Your task to perform on an android device: Open Google Chrome and click the shortcut for Amazon.com Image 0: 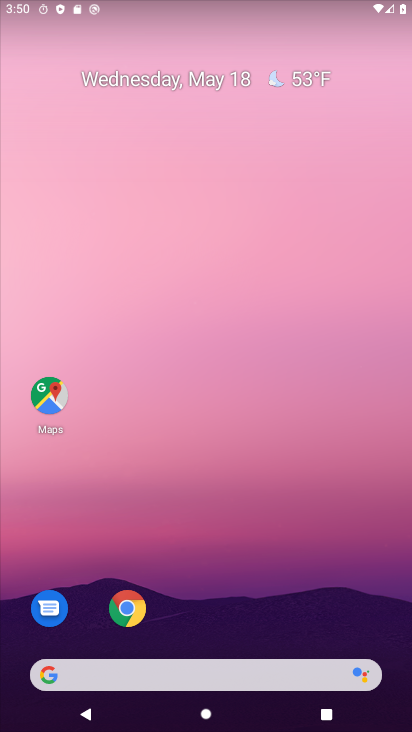
Step 0: drag from (275, 692) to (248, 2)
Your task to perform on an android device: Open Google Chrome and click the shortcut for Amazon.com Image 1: 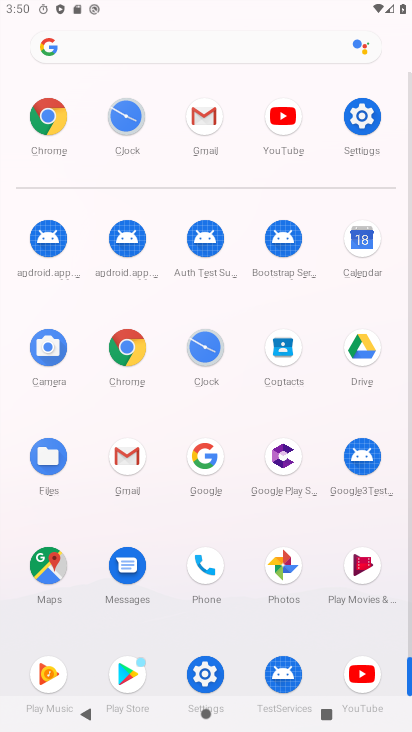
Step 1: click (126, 343)
Your task to perform on an android device: Open Google Chrome and click the shortcut for Amazon.com Image 2: 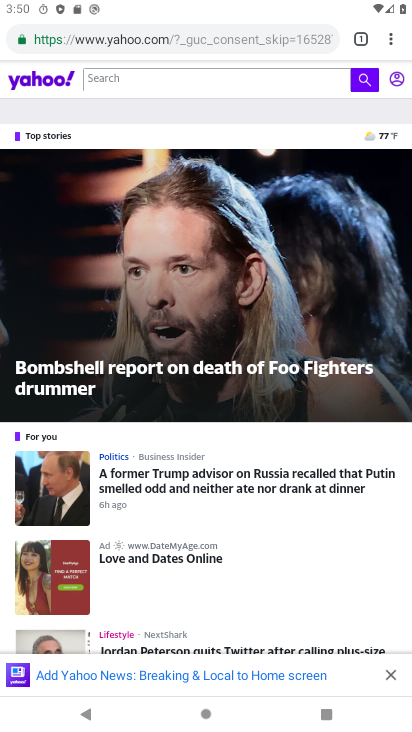
Step 2: click (276, 37)
Your task to perform on an android device: Open Google Chrome and click the shortcut for Amazon.com Image 3: 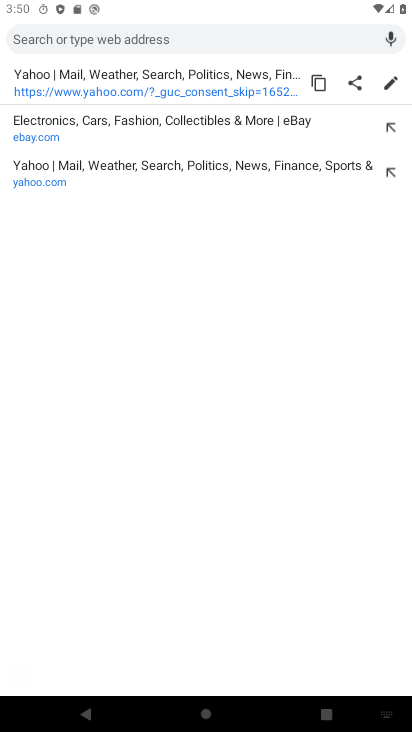
Step 3: type "amazon.com"
Your task to perform on an android device: Open Google Chrome and click the shortcut for Amazon.com Image 4: 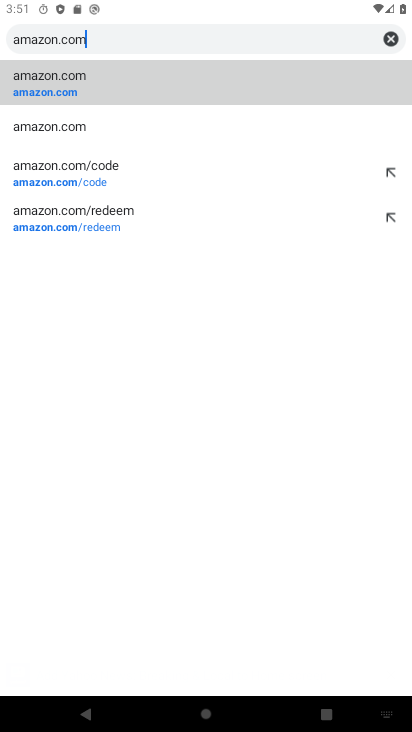
Step 4: click (64, 69)
Your task to perform on an android device: Open Google Chrome and click the shortcut for Amazon.com Image 5: 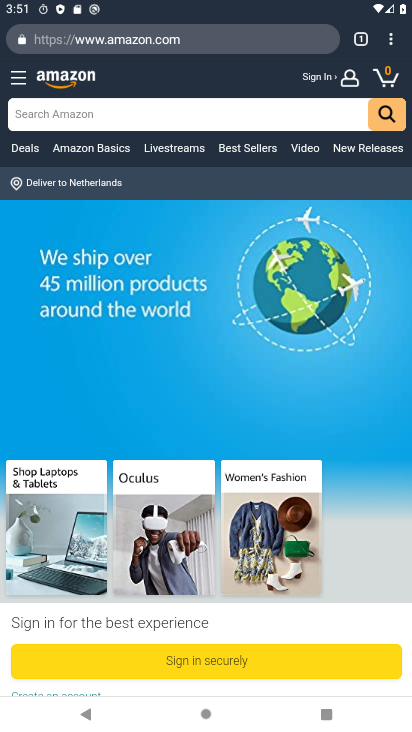
Step 5: click (387, 43)
Your task to perform on an android device: Open Google Chrome and click the shortcut for Amazon.com Image 6: 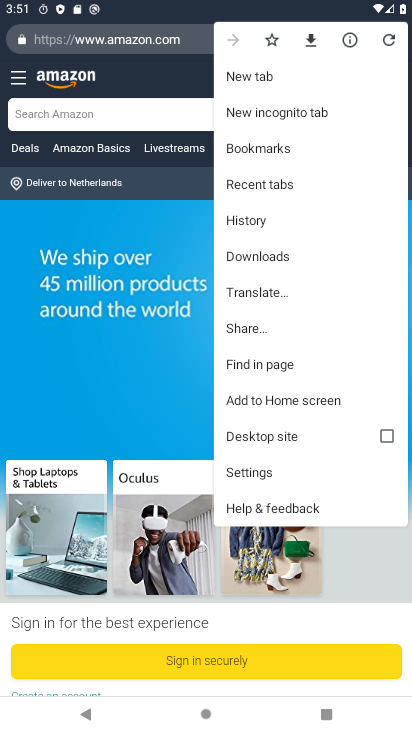
Step 6: click (271, 402)
Your task to perform on an android device: Open Google Chrome and click the shortcut for Amazon.com Image 7: 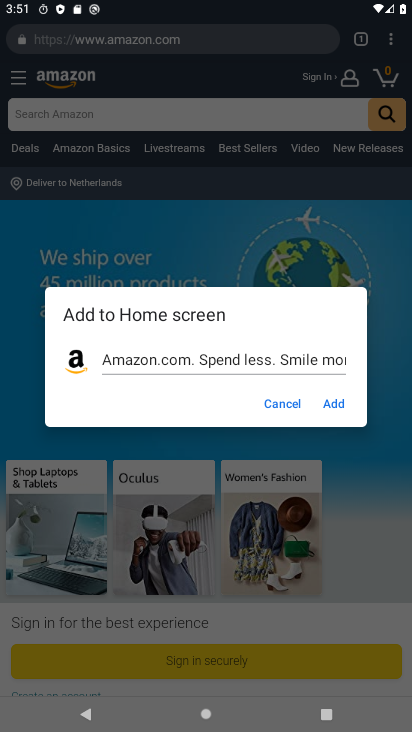
Step 7: click (324, 399)
Your task to perform on an android device: Open Google Chrome and click the shortcut for Amazon.com Image 8: 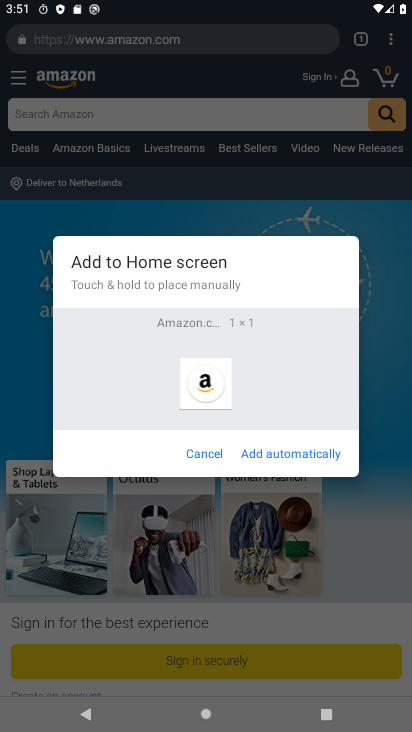
Step 8: click (276, 446)
Your task to perform on an android device: Open Google Chrome and click the shortcut for Amazon.com Image 9: 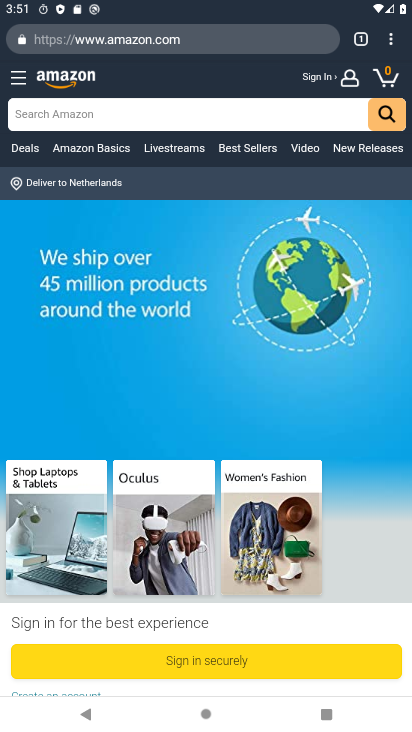
Step 9: task complete